Your task to perform on an android device: set default search engine in the chrome app Image 0: 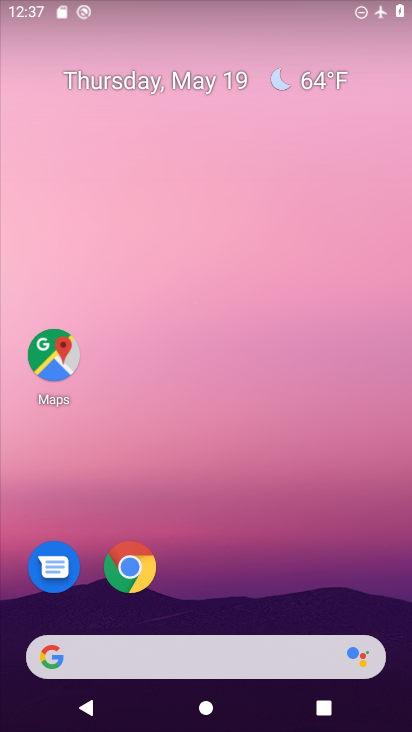
Step 0: click (130, 577)
Your task to perform on an android device: set default search engine in the chrome app Image 1: 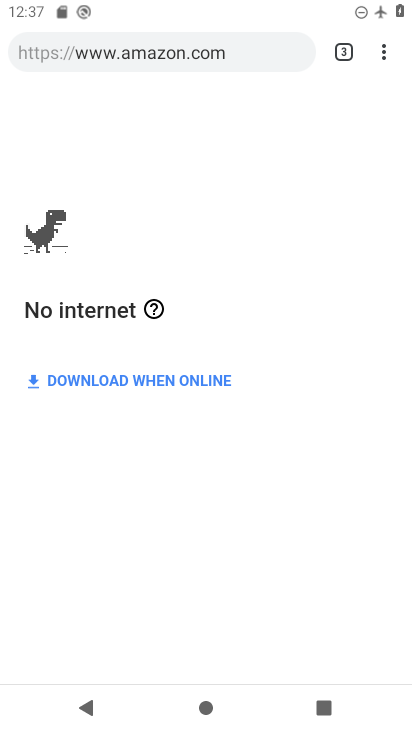
Step 1: drag from (378, 52) to (208, 585)
Your task to perform on an android device: set default search engine in the chrome app Image 2: 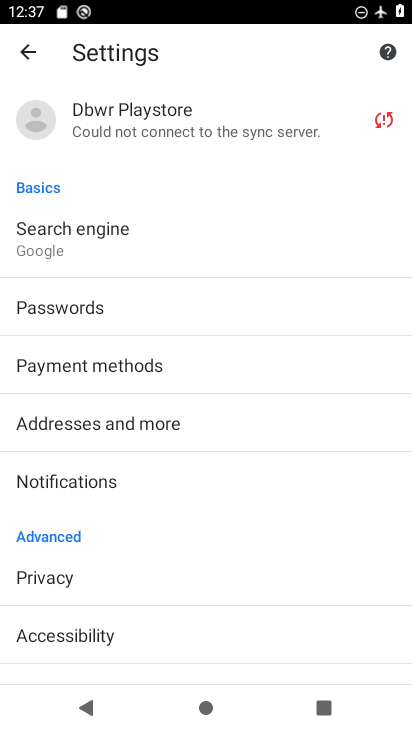
Step 2: click (113, 232)
Your task to perform on an android device: set default search engine in the chrome app Image 3: 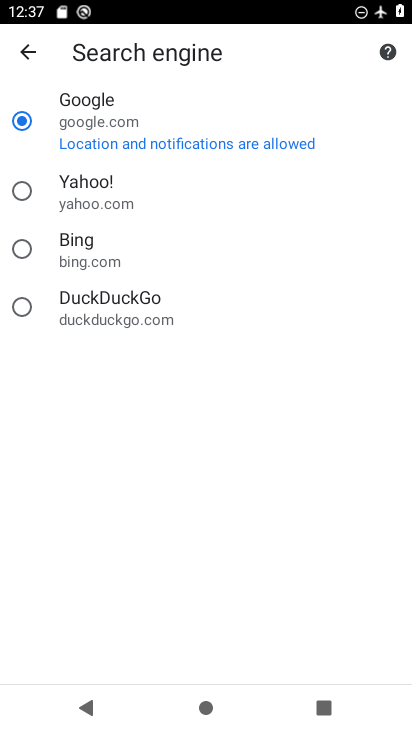
Step 3: click (151, 254)
Your task to perform on an android device: set default search engine in the chrome app Image 4: 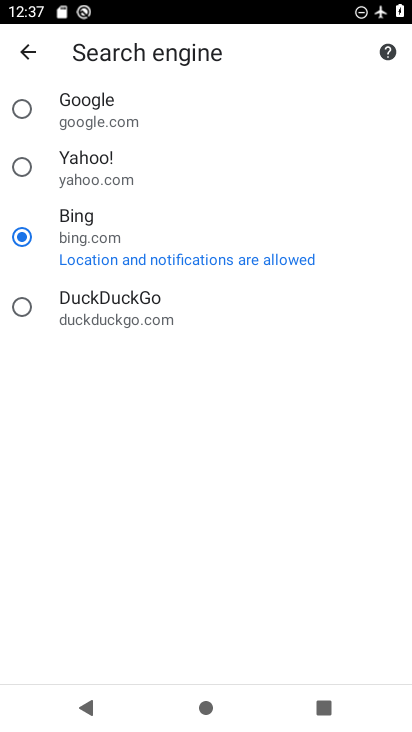
Step 4: task complete